Your task to perform on an android device: all mails in gmail Image 0: 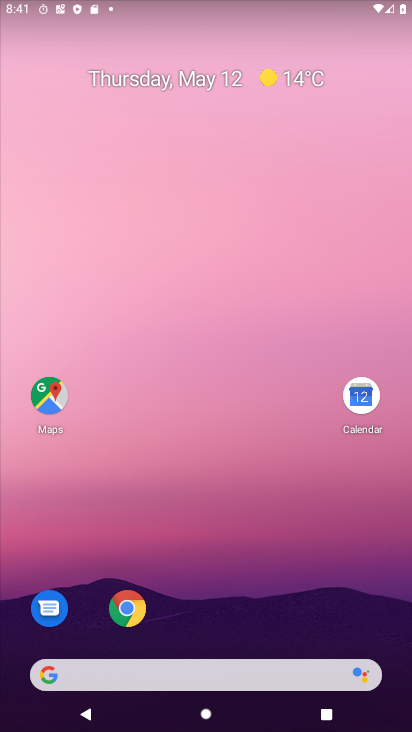
Step 0: drag from (285, 528) to (188, 169)
Your task to perform on an android device: all mails in gmail Image 1: 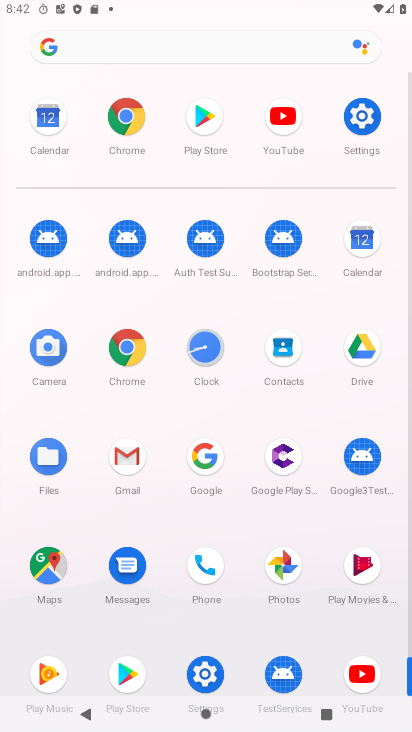
Step 1: click (131, 454)
Your task to perform on an android device: all mails in gmail Image 2: 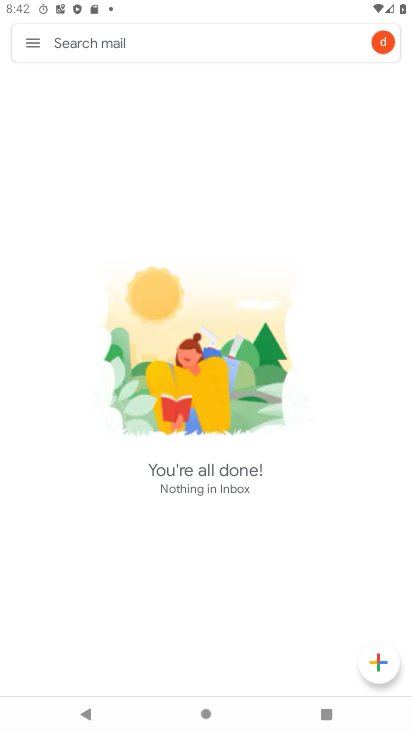
Step 2: click (33, 45)
Your task to perform on an android device: all mails in gmail Image 3: 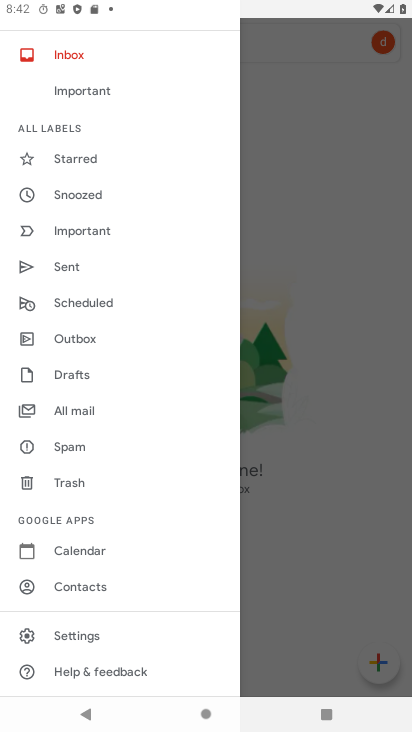
Step 3: click (84, 232)
Your task to perform on an android device: all mails in gmail Image 4: 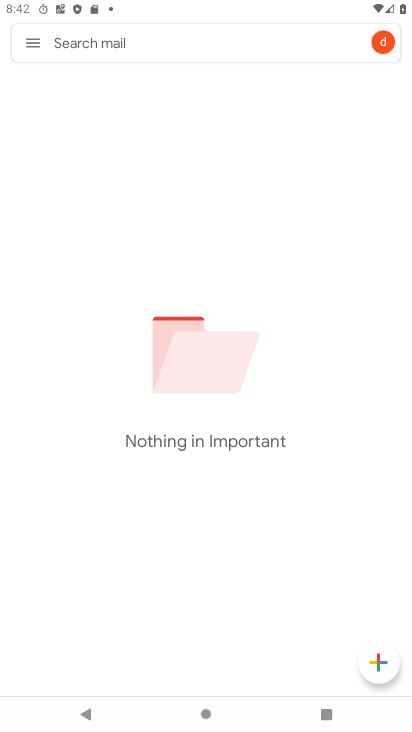
Step 4: drag from (5, 235) to (293, 238)
Your task to perform on an android device: all mails in gmail Image 5: 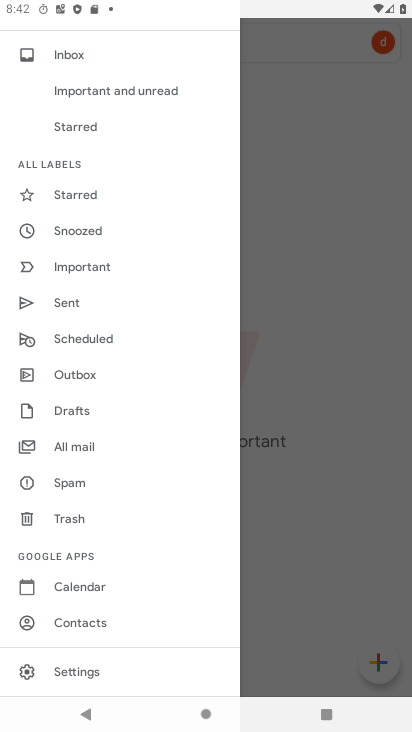
Step 5: click (65, 451)
Your task to perform on an android device: all mails in gmail Image 6: 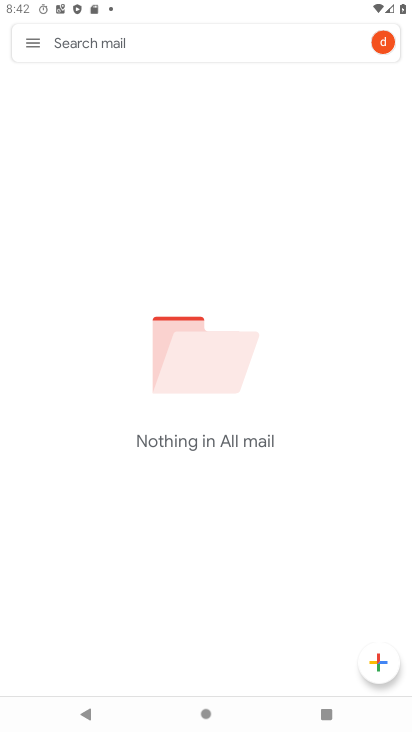
Step 6: task complete